Your task to perform on an android device: find snoozed emails in the gmail app Image 0: 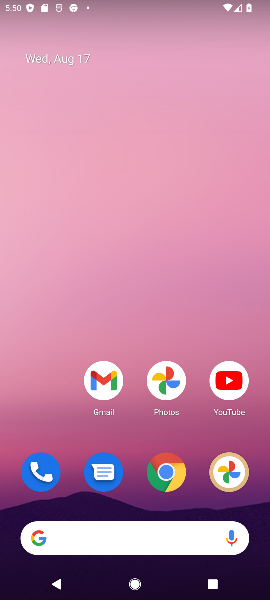
Step 0: click (114, 390)
Your task to perform on an android device: find snoozed emails in the gmail app Image 1: 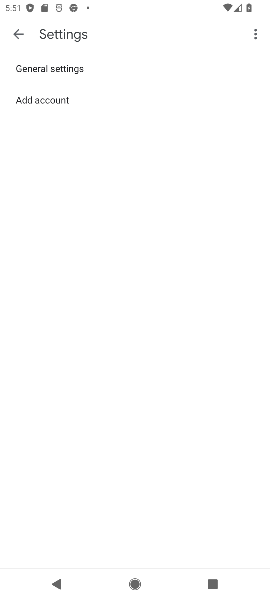
Step 1: click (23, 28)
Your task to perform on an android device: find snoozed emails in the gmail app Image 2: 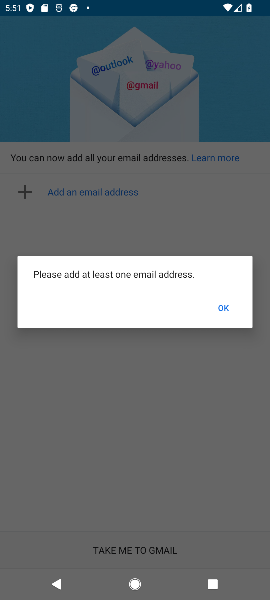
Step 2: task complete